Your task to perform on an android device: move a message to another label in the gmail app Image 0: 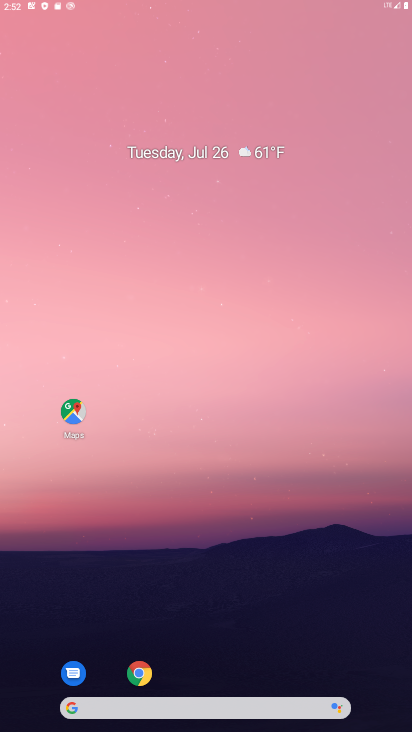
Step 0: click (210, 73)
Your task to perform on an android device: move a message to another label in the gmail app Image 1: 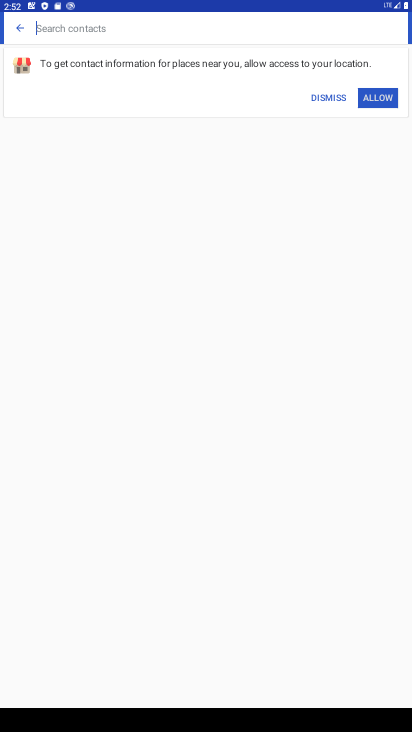
Step 1: press home button
Your task to perform on an android device: move a message to another label in the gmail app Image 2: 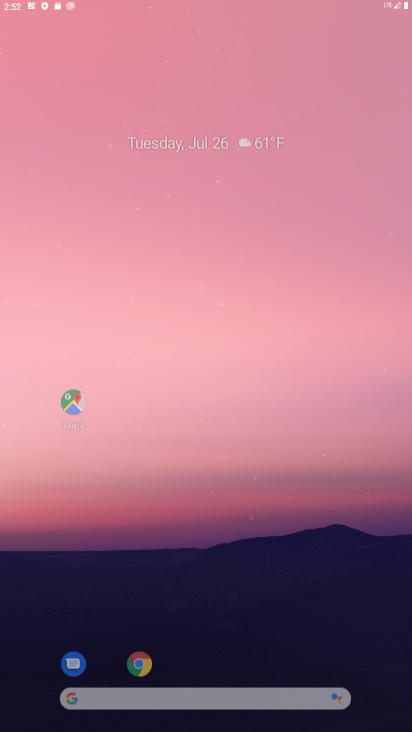
Step 2: drag from (180, 671) to (205, 125)
Your task to perform on an android device: move a message to another label in the gmail app Image 3: 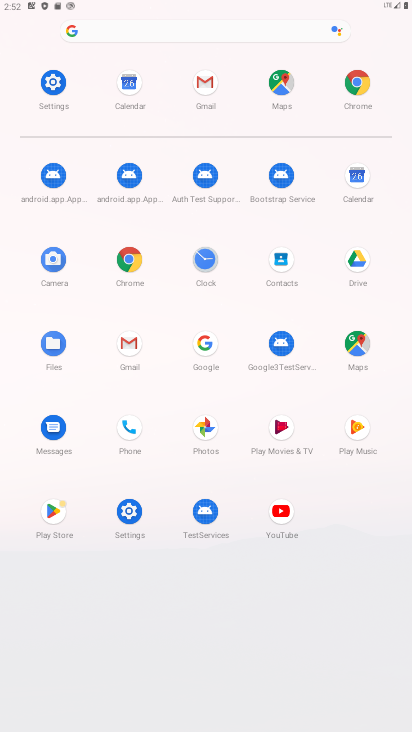
Step 3: click (131, 334)
Your task to perform on an android device: move a message to another label in the gmail app Image 4: 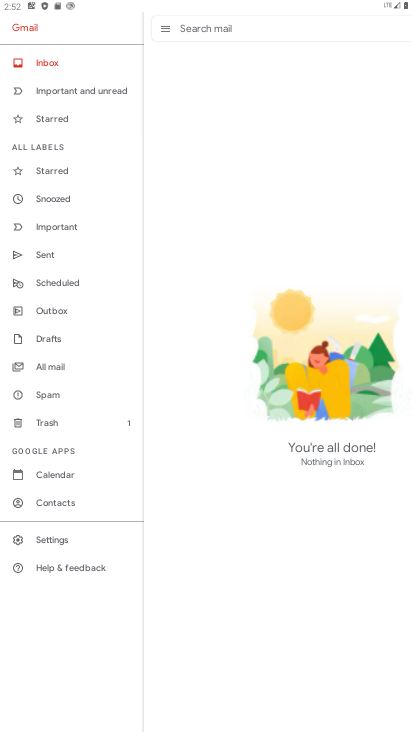
Step 4: drag from (255, 140) to (230, 554)
Your task to perform on an android device: move a message to another label in the gmail app Image 5: 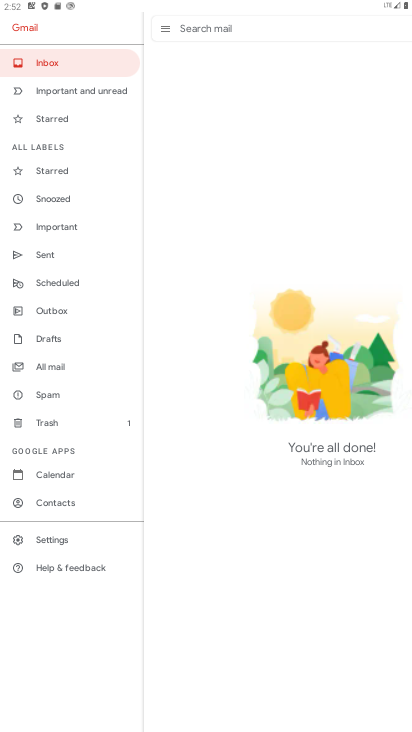
Step 5: click (274, 169)
Your task to perform on an android device: move a message to another label in the gmail app Image 6: 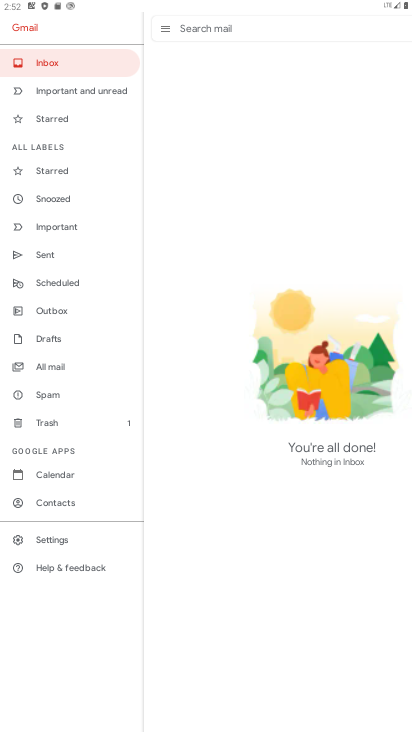
Step 6: click (24, 56)
Your task to perform on an android device: move a message to another label in the gmail app Image 7: 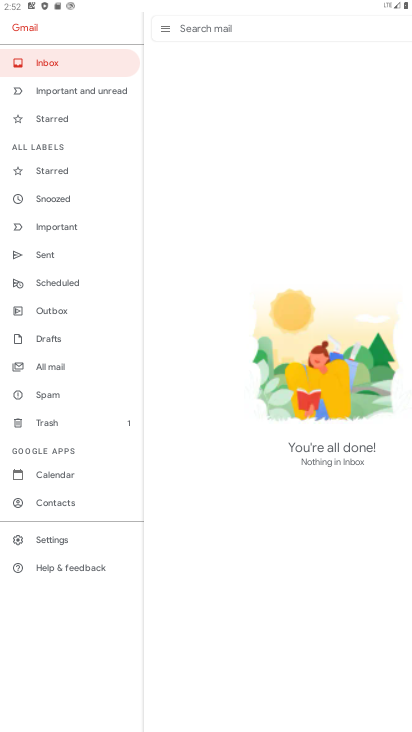
Step 7: click (231, 167)
Your task to perform on an android device: move a message to another label in the gmail app Image 8: 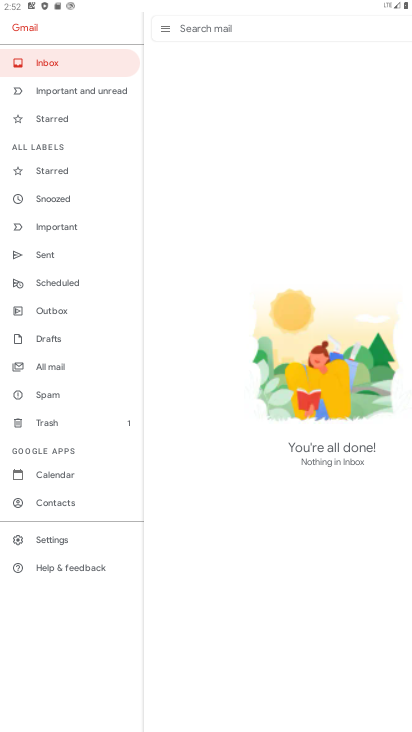
Step 8: click (245, 138)
Your task to perform on an android device: move a message to another label in the gmail app Image 9: 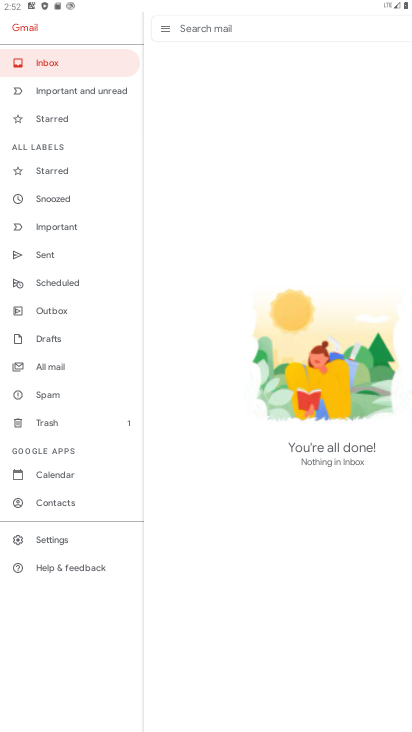
Step 9: task complete